Your task to perform on an android device: toggle location history Image 0: 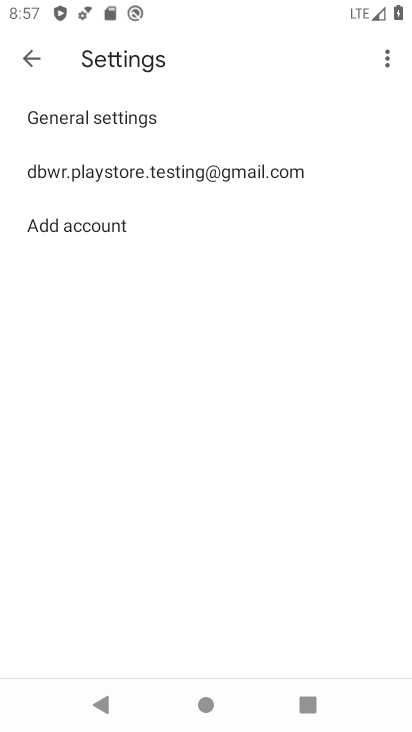
Step 0: press home button
Your task to perform on an android device: toggle location history Image 1: 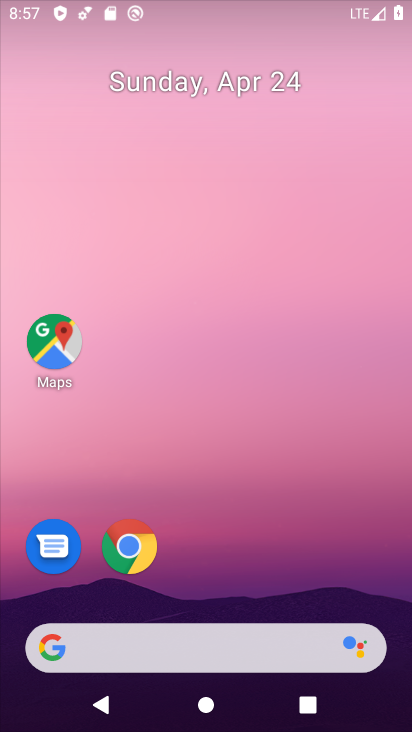
Step 1: drag from (228, 602) to (267, 8)
Your task to perform on an android device: toggle location history Image 2: 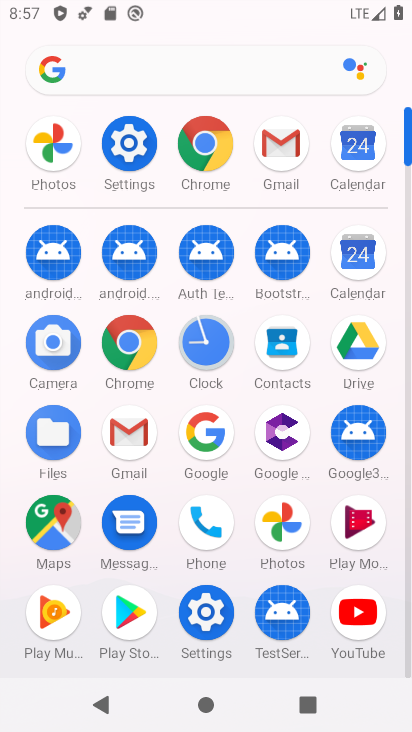
Step 2: click (133, 124)
Your task to perform on an android device: toggle location history Image 3: 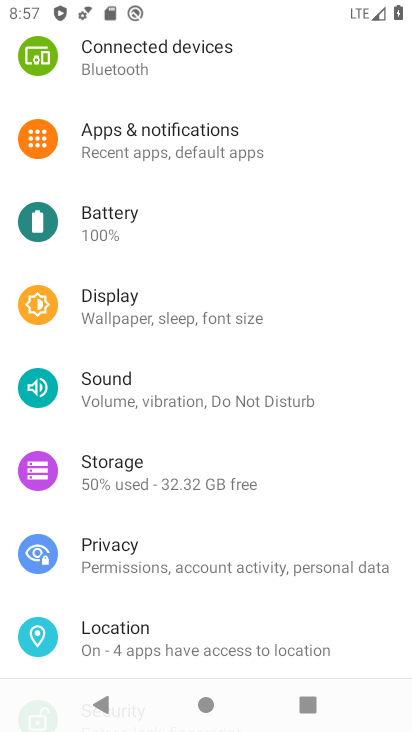
Step 3: click (152, 610)
Your task to perform on an android device: toggle location history Image 4: 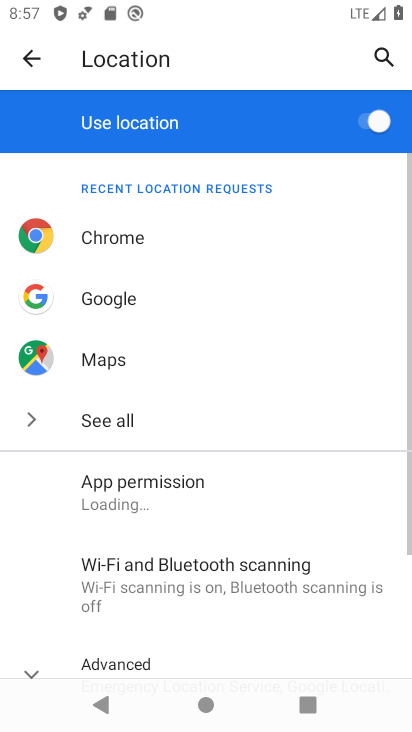
Step 4: drag from (206, 612) to (270, 268)
Your task to perform on an android device: toggle location history Image 5: 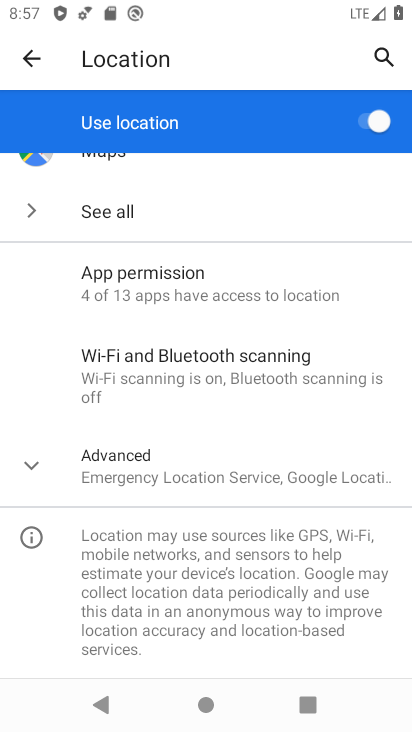
Step 5: click (207, 481)
Your task to perform on an android device: toggle location history Image 6: 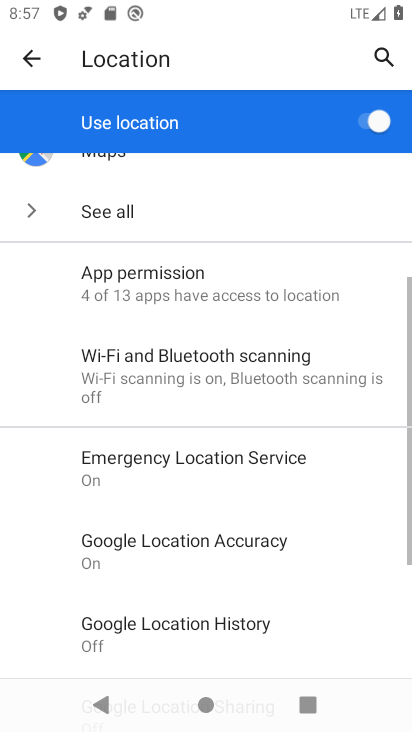
Step 6: drag from (187, 560) to (230, 392)
Your task to perform on an android device: toggle location history Image 7: 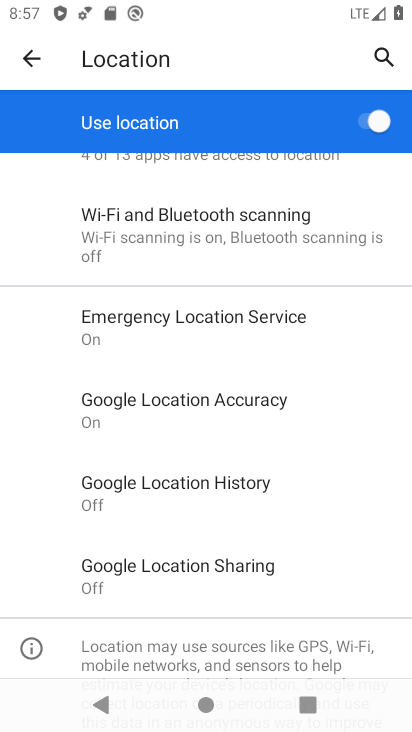
Step 7: click (249, 481)
Your task to perform on an android device: toggle location history Image 8: 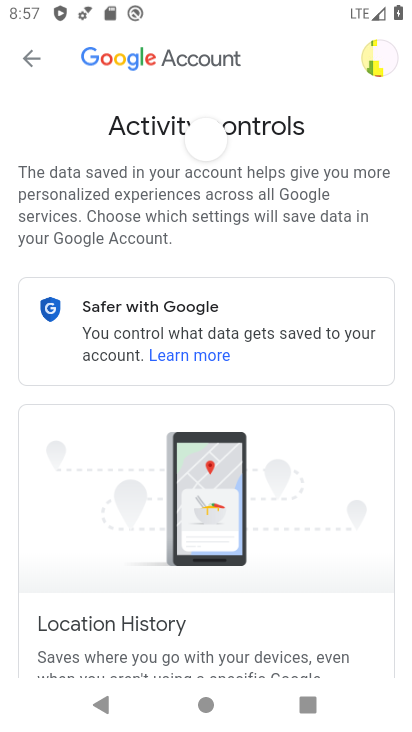
Step 8: drag from (338, 512) to (304, 238)
Your task to perform on an android device: toggle location history Image 9: 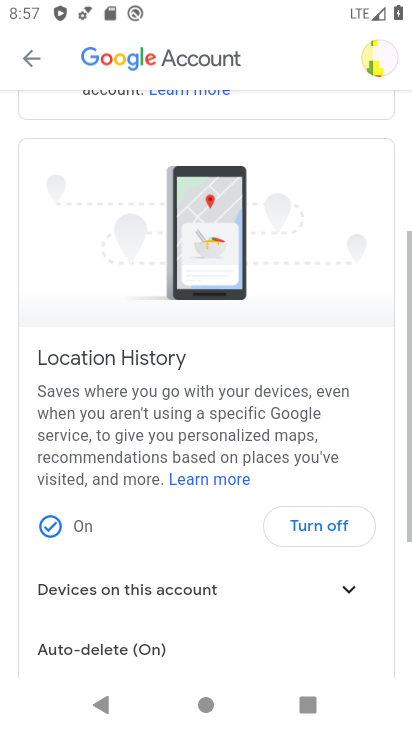
Step 9: drag from (266, 563) to (271, 341)
Your task to perform on an android device: toggle location history Image 10: 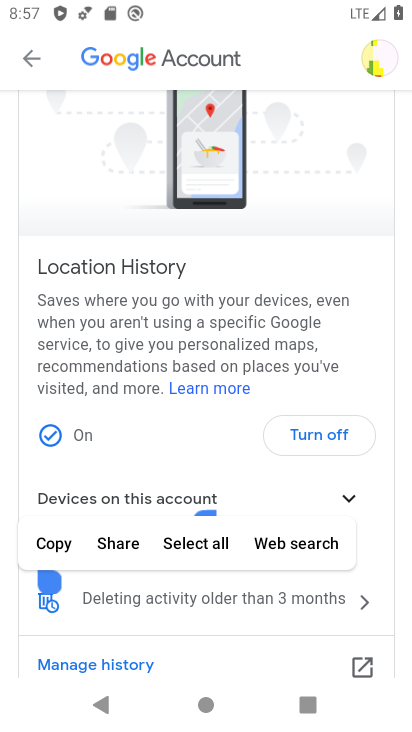
Step 10: click (98, 441)
Your task to perform on an android device: toggle location history Image 11: 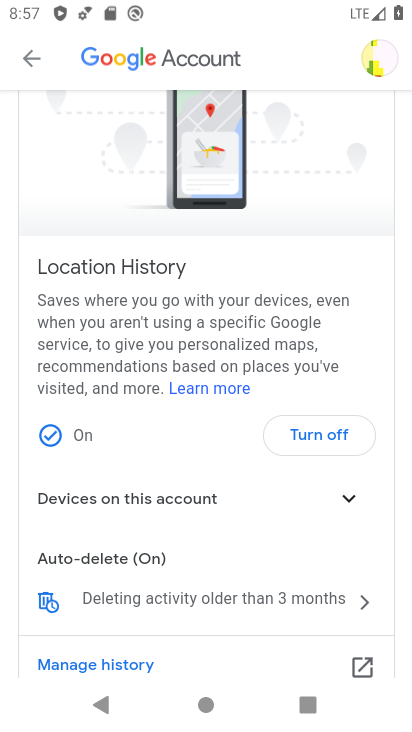
Step 11: click (76, 430)
Your task to perform on an android device: toggle location history Image 12: 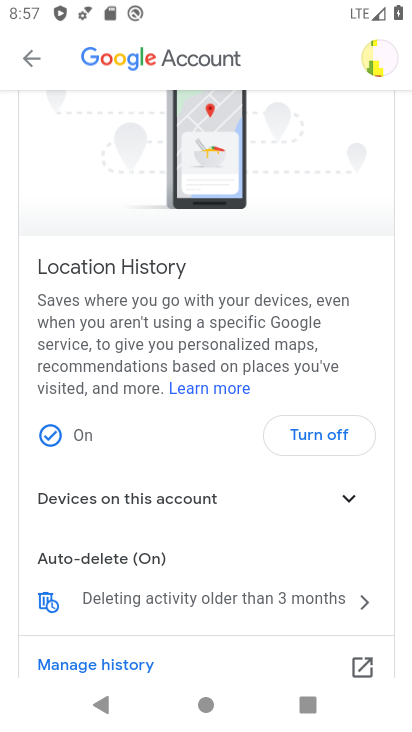
Step 12: click (329, 434)
Your task to perform on an android device: toggle location history Image 13: 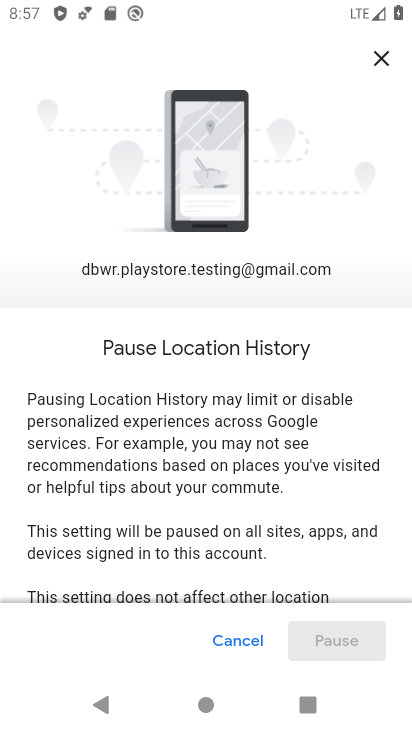
Step 13: drag from (320, 439) to (368, 62)
Your task to perform on an android device: toggle location history Image 14: 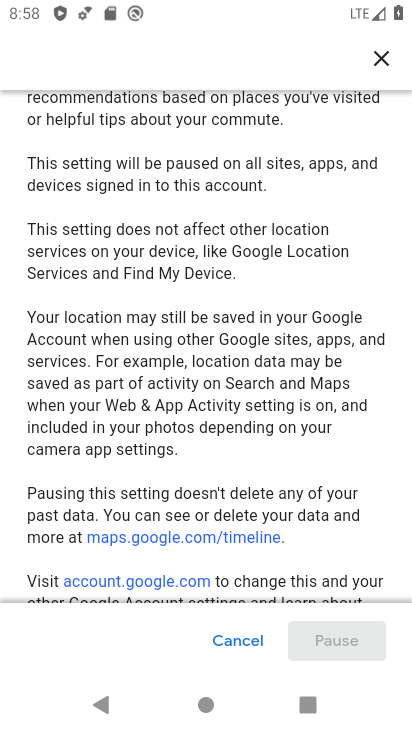
Step 14: drag from (259, 574) to (271, 173)
Your task to perform on an android device: toggle location history Image 15: 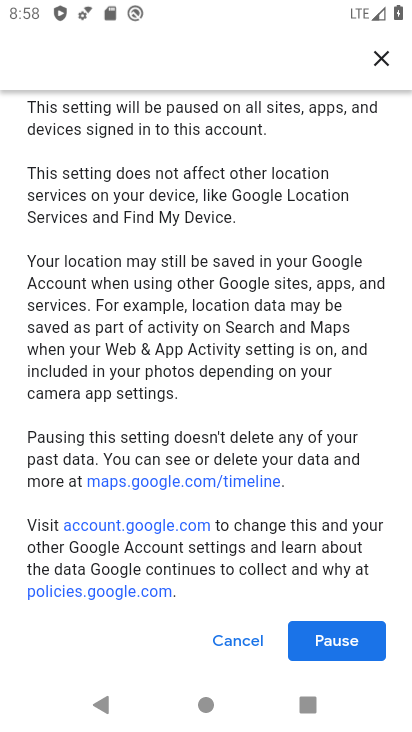
Step 15: click (322, 628)
Your task to perform on an android device: toggle location history Image 16: 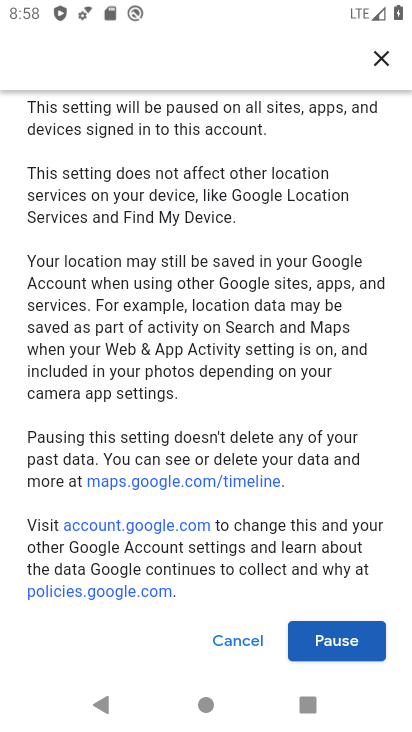
Step 16: click (346, 650)
Your task to perform on an android device: toggle location history Image 17: 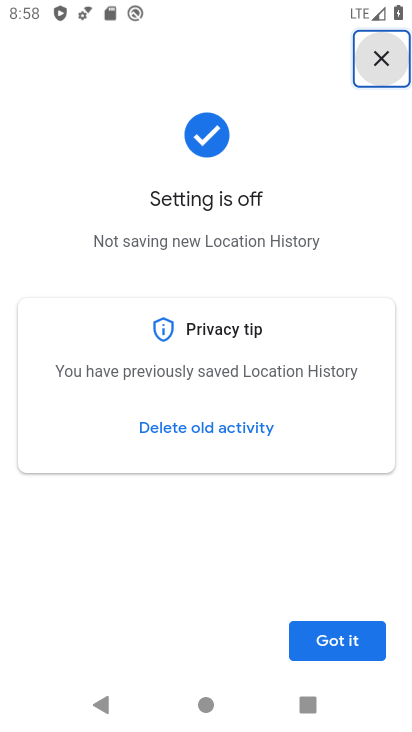
Step 17: click (364, 637)
Your task to perform on an android device: toggle location history Image 18: 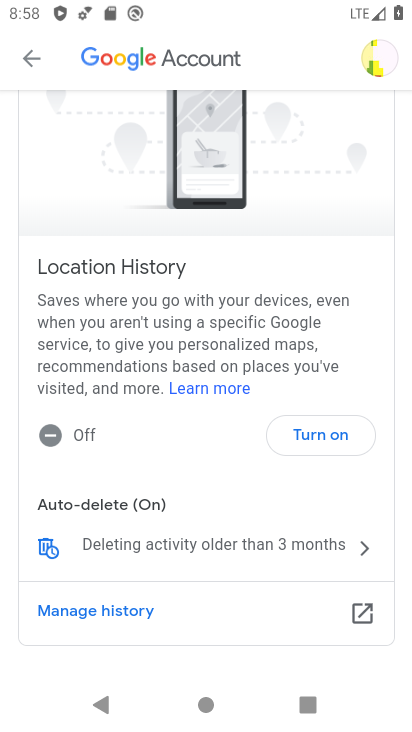
Step 18: task complete